Your task to perform on an android device: Open settings Image 0: 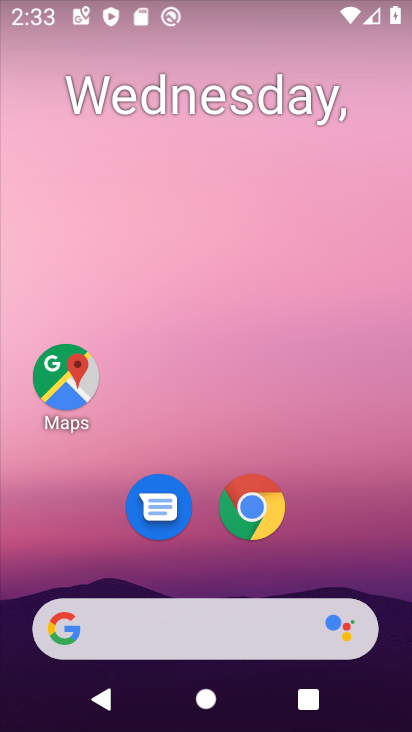
Step 0: drag from (340, 520) to (403, 214)
Your task to perform on an android device: Open settings Image 1: 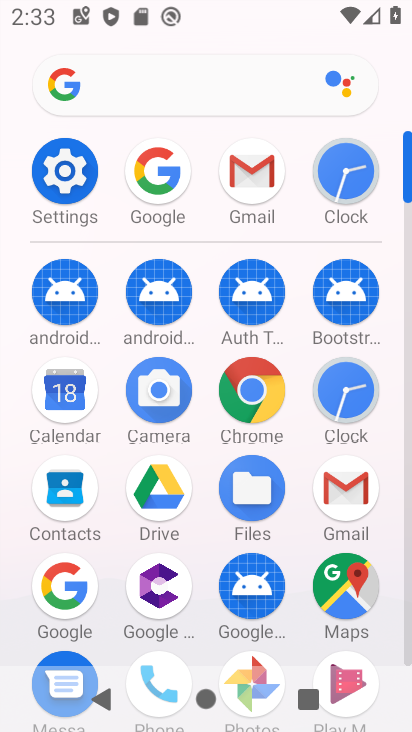
Step 1: click (74, 185)
Your task to perform on an android device: Open settings Image 2: 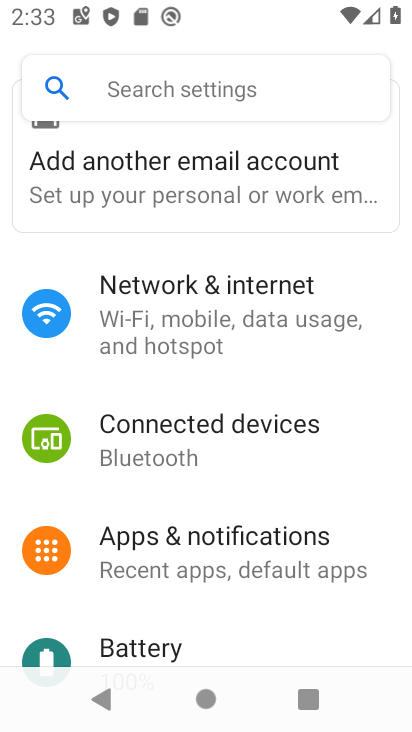
Step 2: task complete